Your task to perform on an android device: open app "Google Calendar" (install if not already installed) Image 0: 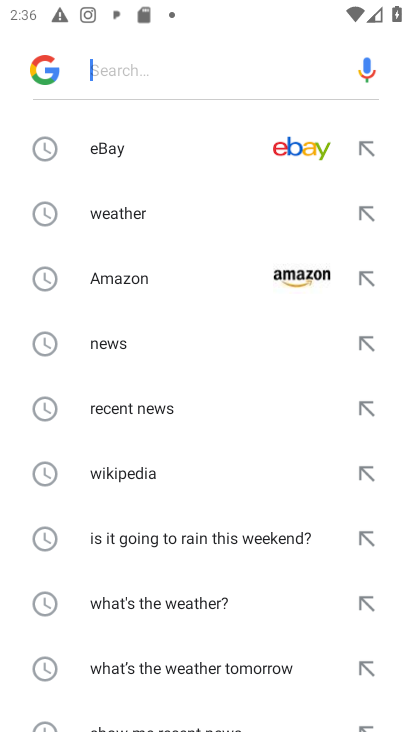
Step 0: click (248, 457)
Your task to perform on an android device: open app "Google Calendar" (install if not already installed) Image 1: 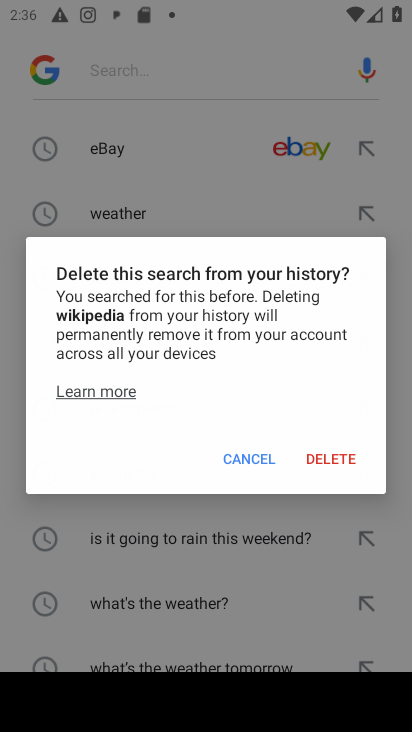
Step 1: press home button
Your task to perform on an android device: open app "Google Calendar" (install if not already installed) Image 2: 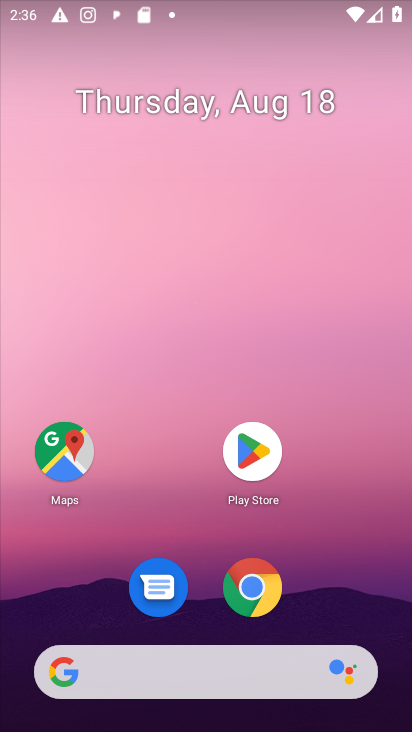
Step 2: click (251, 443)
Your task to perform on an android device: open app "Google Calendar" (install if not already installed) Image 3: 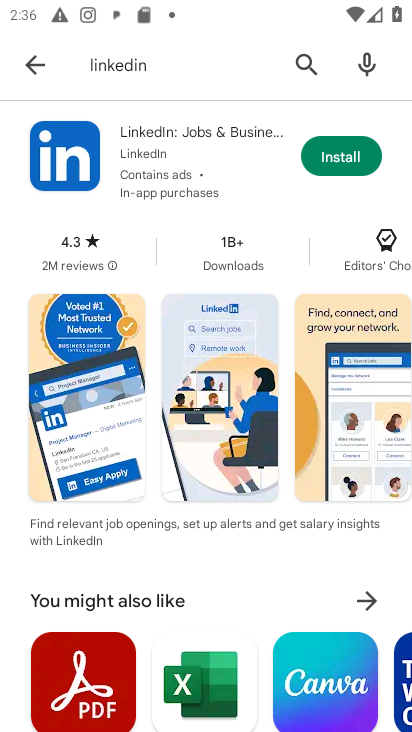
Step 3: click (305, 58)
Your task to perform on an android device: open app "Google Calendar" (install if not already installed) Image 4: 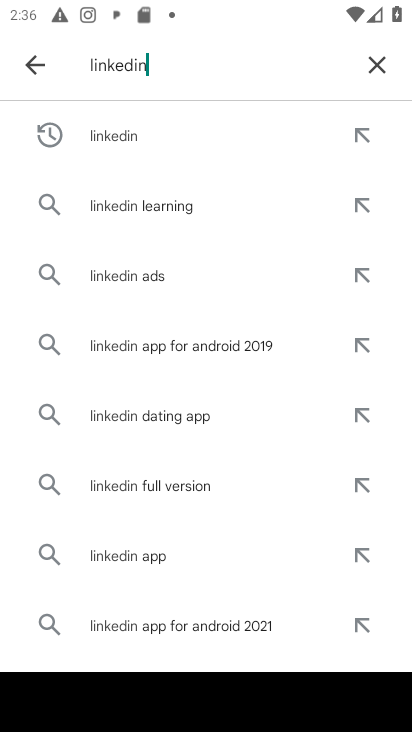
Step 4: click (376, 68)
Your task to perform on an android device: open app "Google Calendar" (install if not already installed) Image 5: 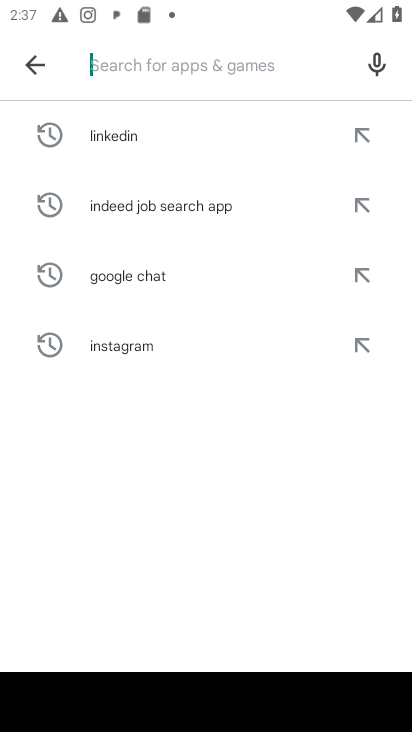
Step 5: type "Google Calendar"
Your task to perform on an android device: open app "Google Calendar" (install if not already installed) Image 6: 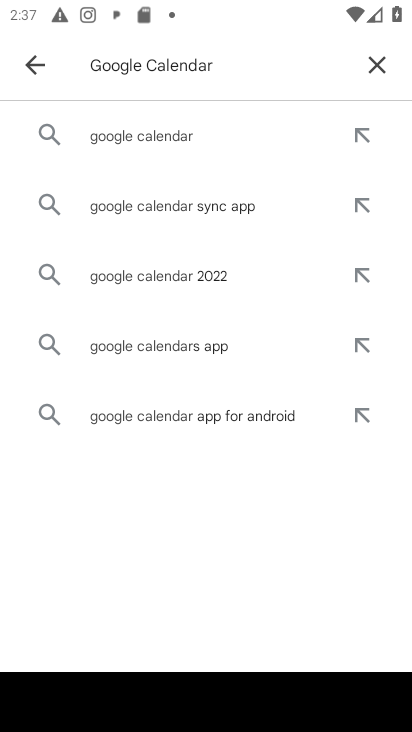
Step 6: click (166, 132)
Your task to perform on an android device: open app "Google Calendar" (install if not already installed) Image 7: 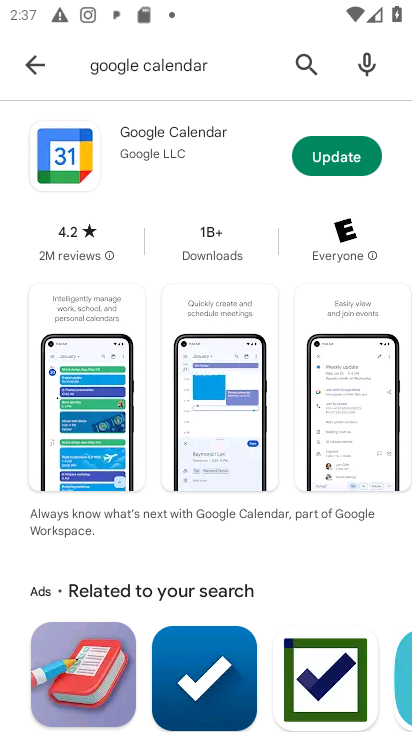
Step 7: click (190, 146)
Your task to perform on an android device: open app "Google Calendar" (install if not already installed) Image 8: 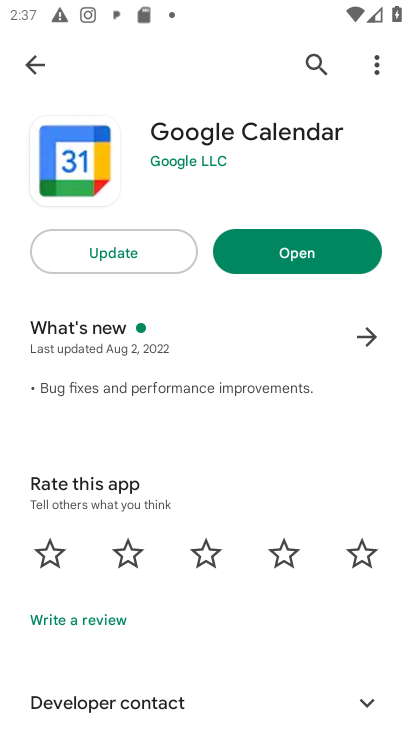
Step 8: click (295, 252)
Your task to perform on an android device: open app "Google Calendar" (install if not already installed) Image 9: 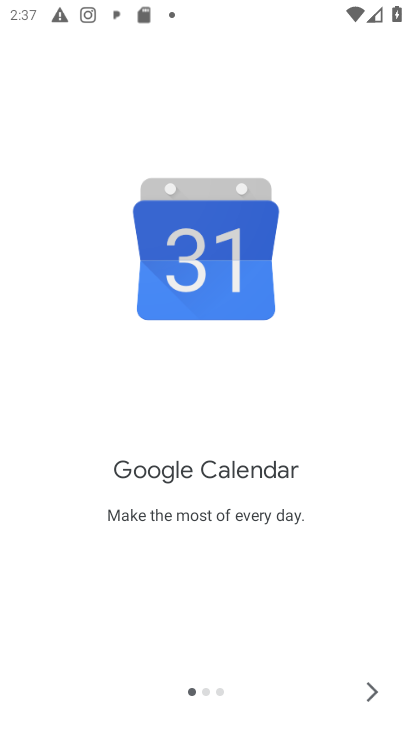
Step 9: click (372, 687)
Your task to perform on an android device: open app "Google Calendar" (install if not already installed) Image 10: 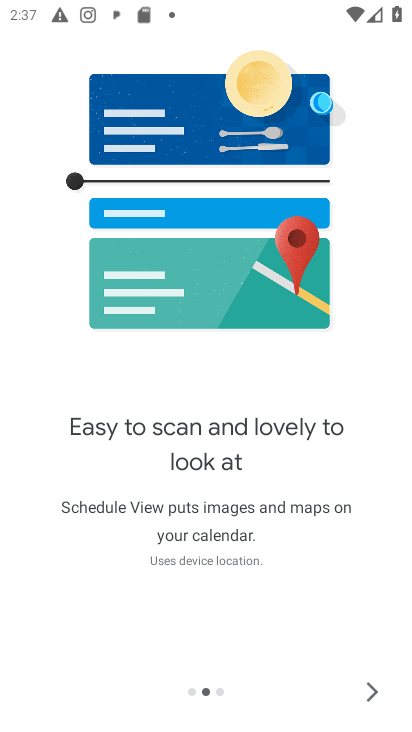
Step 10: click (372, 687)
Your task to perform on an android device: open app "Google Calendar" (install if not already installed) Image 11: 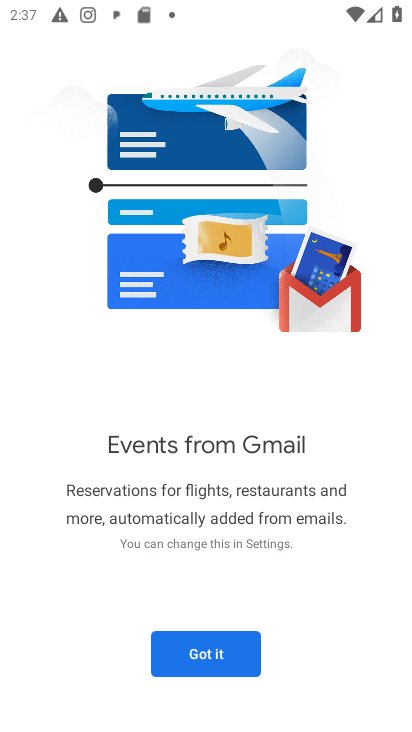
Step 11: click (192, 652)
Your task to perform on an android device: open app "Google Calendar" (install if not already installed) Image 12: 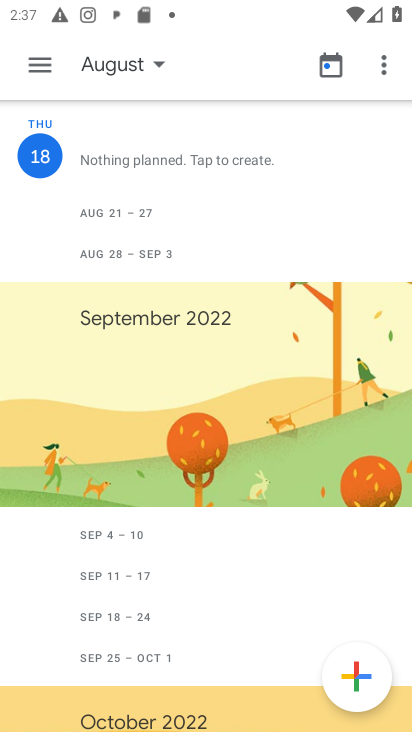
Step 12: task complete